Your task to perform on an android device: turn on sleep mode Image 0: 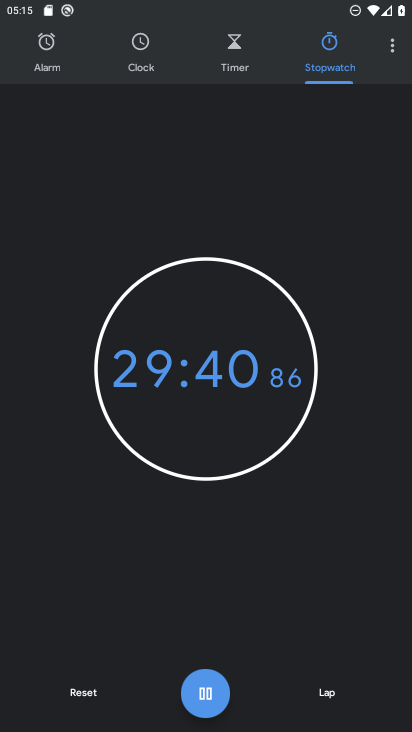
Step 0: press home button
Your task to perform on an android device: turn on sleep mode Image 1: 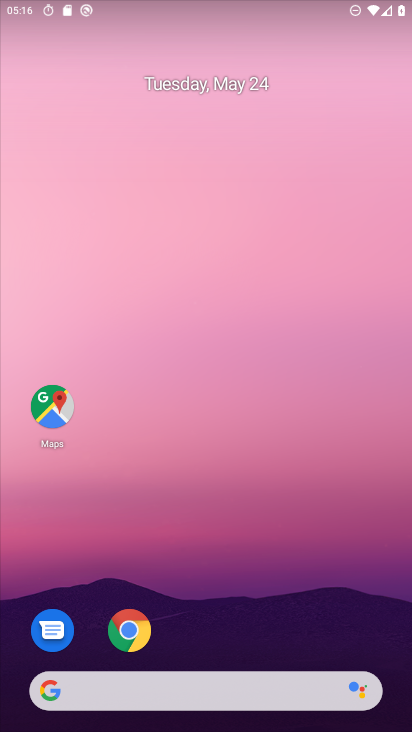
Step 1: drag from (139, 666) to (184, 219)
Your task to perform on an android device: turn on sleep mode Image 2: 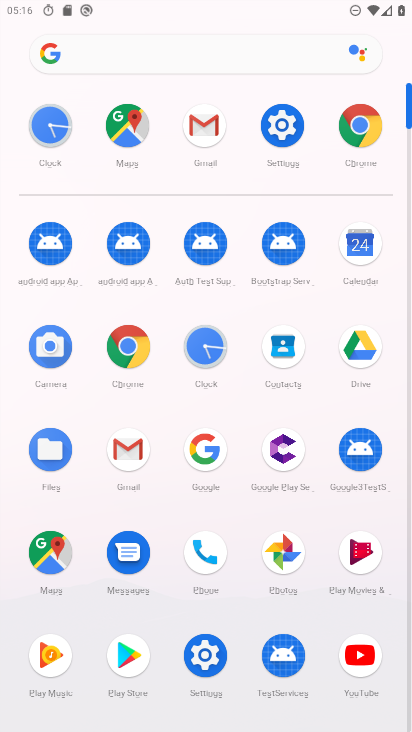
Step 2: click (279, 130)
Your task to perform on an android device: turn on sleep mode Image 3: 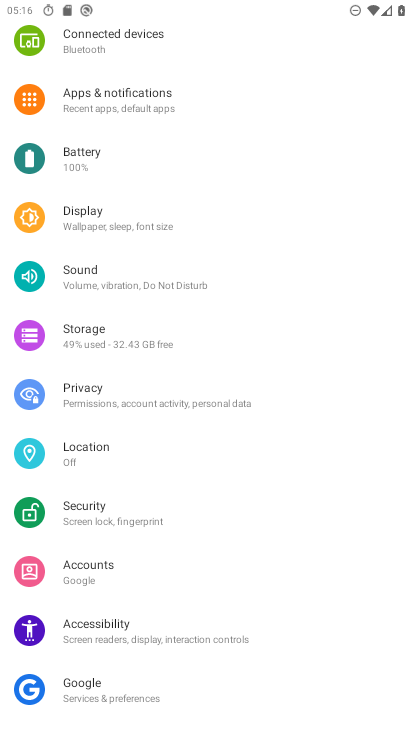
Step 3: task complete